Your task to perform on an android device: Open Wikipedia Image 0: 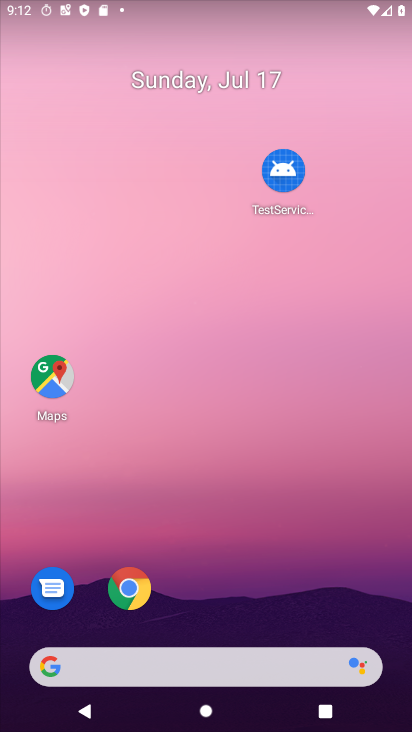
Step 0: drag from (238, 673) to (360, 174)
Your task to perform on an android device: Open Wikipedia Image 1: 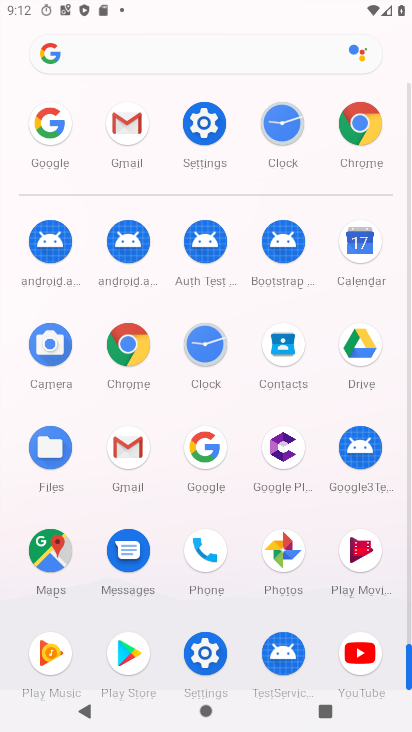
Step 1: click (373, 151)
Your task to perform on an android device: Open Wikipedia Image 2: 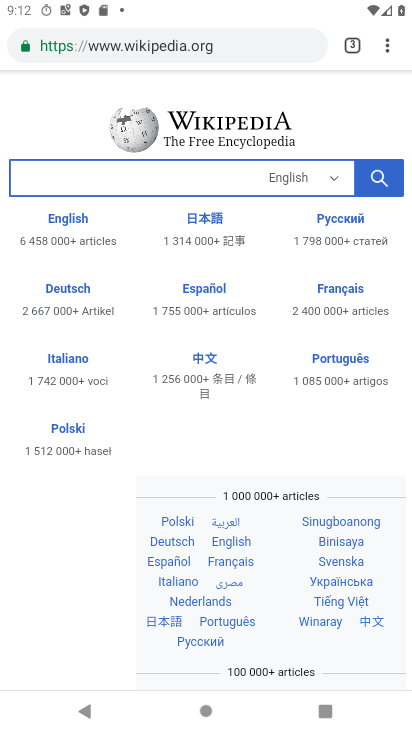
Step 2: task complete